Your task to perform on an android device: set the stopwatch Image 0: 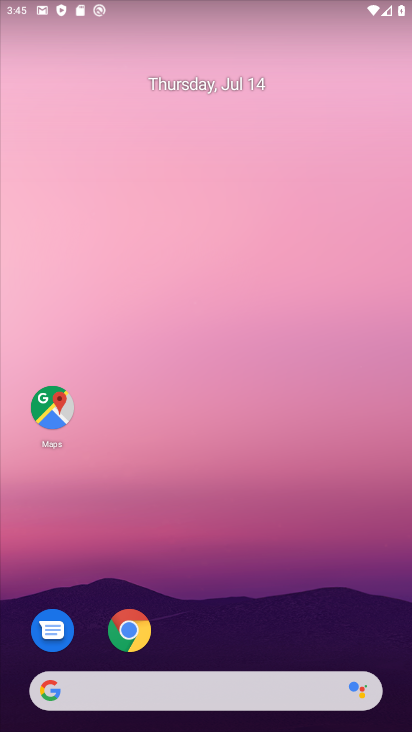
Step 0: drag from (194, 636) to (204, 150)
Your task to perform on an android device: set the stopwatch Image 1: 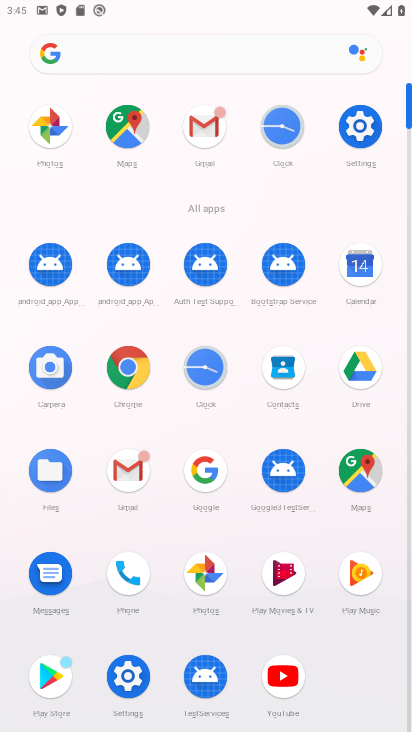
Step 1: click (201, 362)
Your task to perform on an android device: set the stopwatch Image 2: 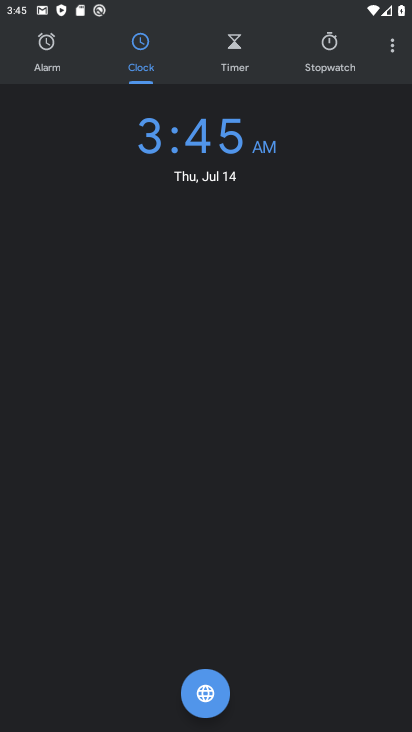
Step 2: click (314, 78)
Your task to perform on an android device: set the stopwatch Image 3: 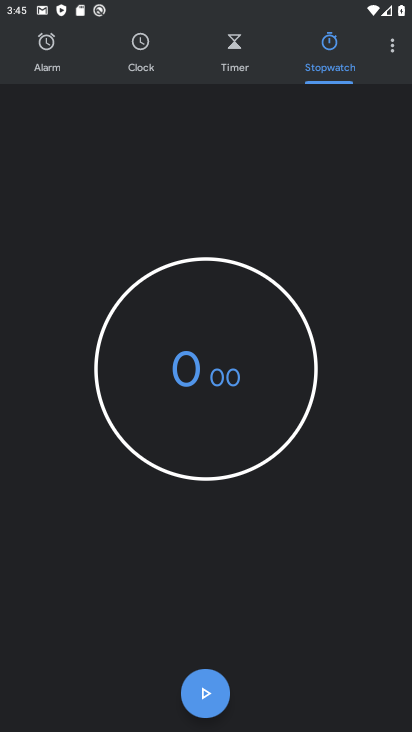
Step 3: click (206, 688)
Your task to perform on an android device: set the stopwatch Image 4: 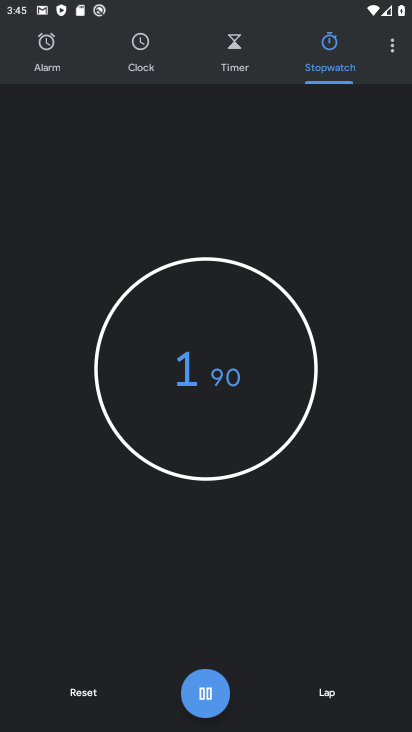
Step 4: task complete